Your task to perform on an android device: Is it going to rain today? Image 0: 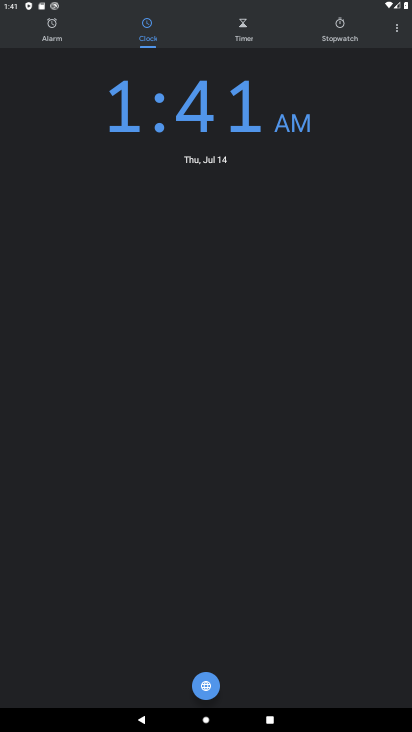
Step 0: press home button
Your task to perform on an android device: Is it going to rain today? Image 1: 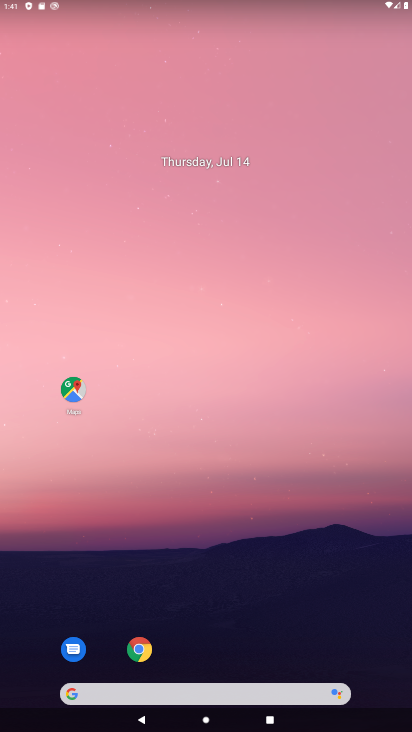
Step 1: drag from (23, 470) to (407, 457)
Your task to perform on an android device: Is it going to rain today? Image 2: 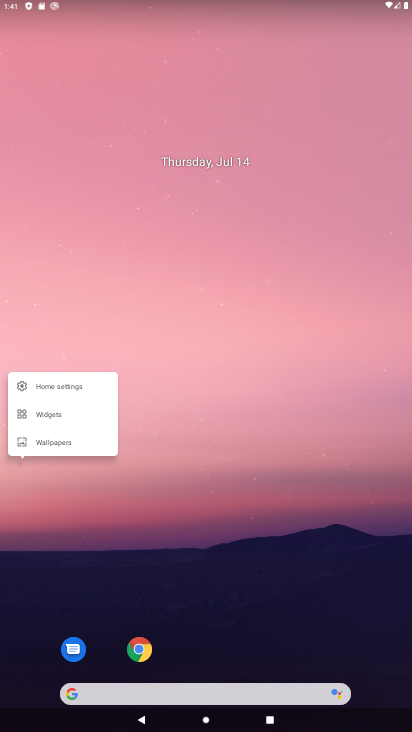
Step 2: drag from (8, 278) to (406, 277)
Your task to perform on an android device: Is it going to rain today? Image 3: 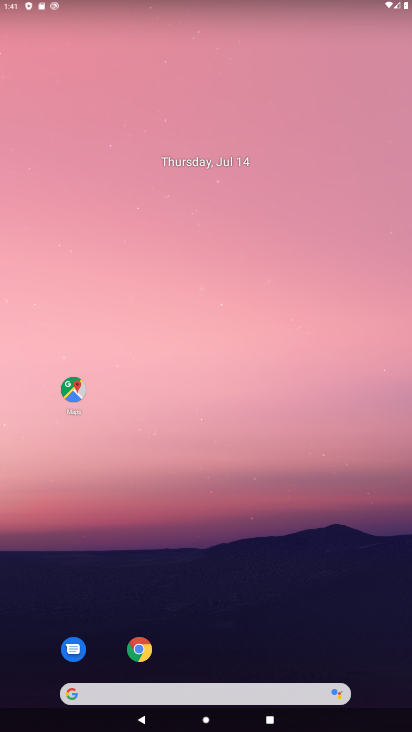
Step 3: drag from (5, 499) to (411, 457)
Your task to perform on an android device: Is it going to rain today? Image 4: 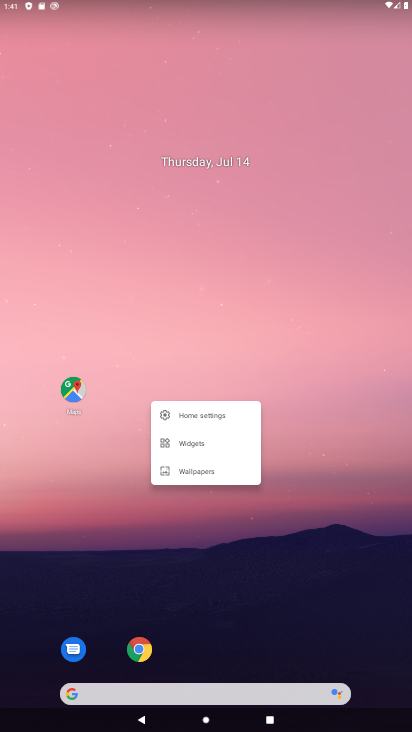
Step 4: click (131, 288)
Your task to perform on an android device: Is it going to rain today? Image 5: 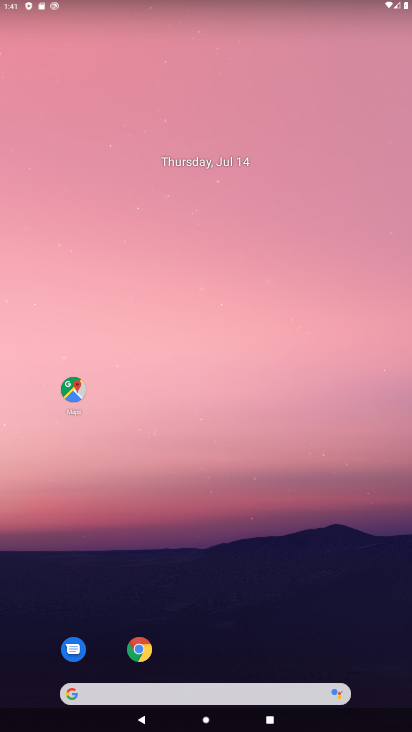
Step 5: drag from (4, 282) to (375, 305)
Your task to perform on an android device: Is it going to rain today? Image 6: 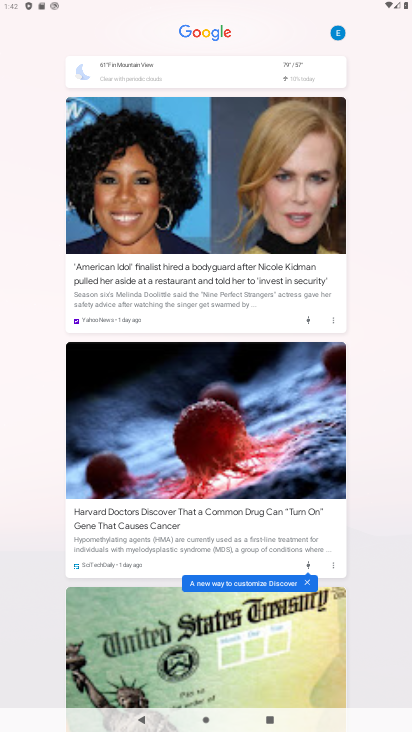
Step 6: click (292, 70)
Your task to perform on an android device: Is it going to rain today? Image 7: 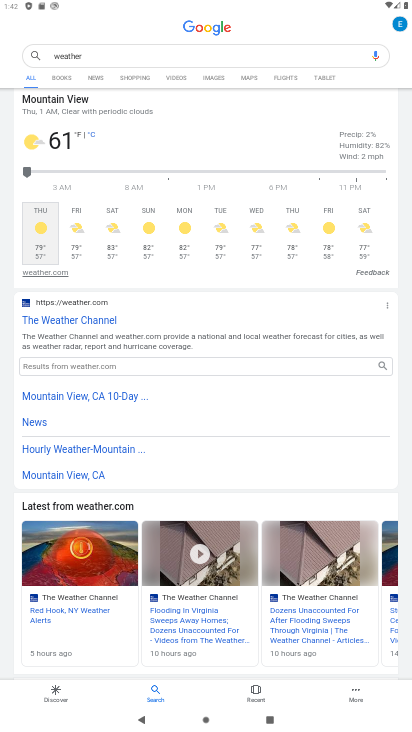
Step 7: click (38, 233)
Your task to perform on an android device: Is it going to rain today? Image 8: 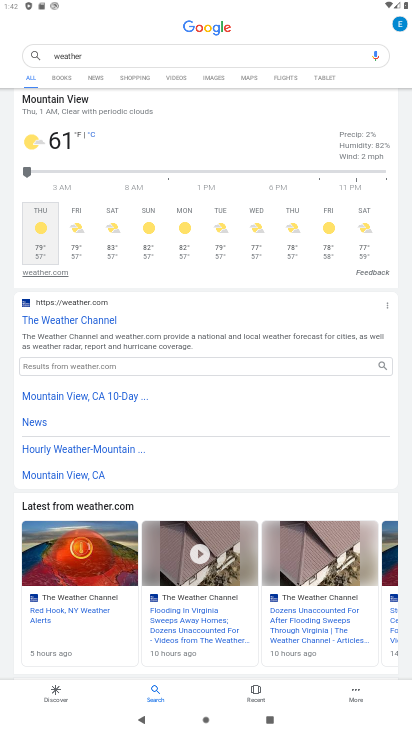
Step 8: task complete